Your task to perform on an android device: Open display settings Image 0: 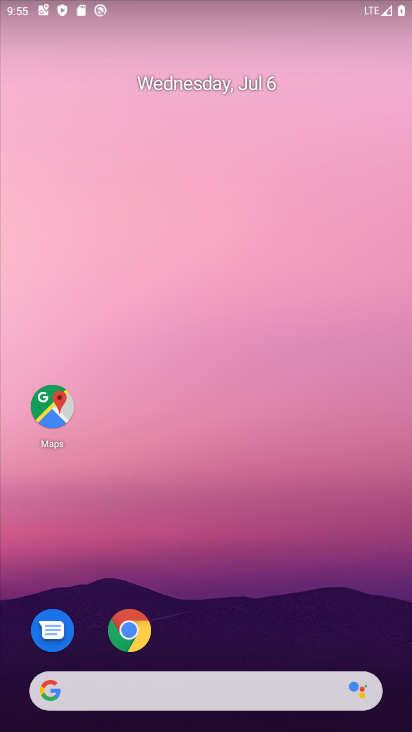
Step 0: drag from (369, 526) to (347, 190)
Your task to perform on an android device: Open display settings Image 1: 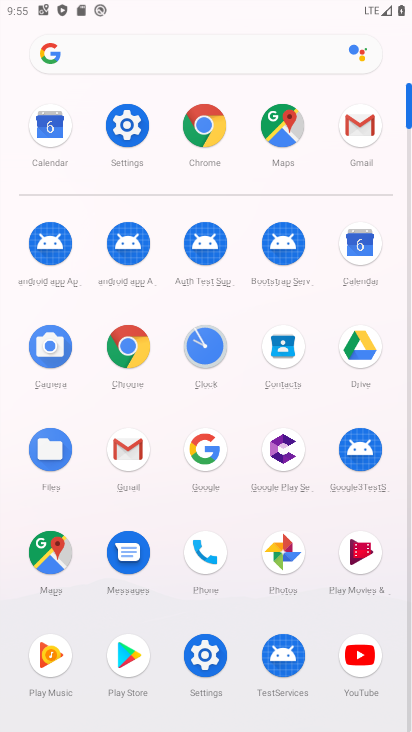
Step 1: click (204, 658)
Your task to perform on an android device: Open display settings Image 2: 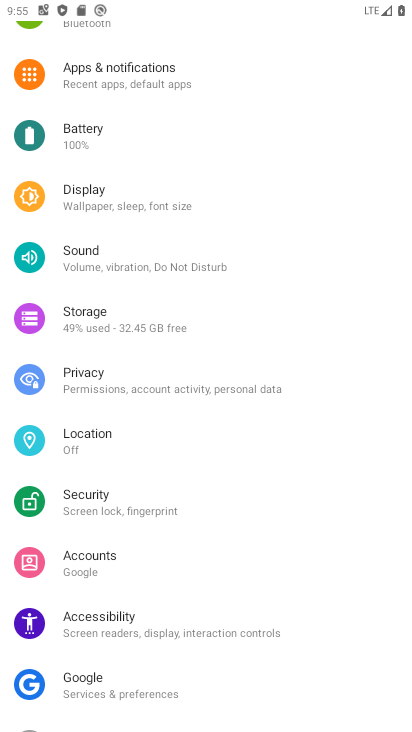
Step 2: click (89, 194)
Your task to perform on an android device: Open display settings Image 3: 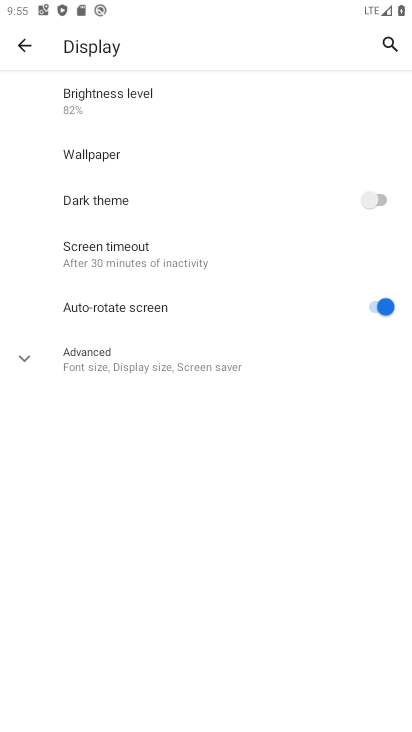
Step 3: click (22, 356)
Your task to perform on an android device: Open display settings Image 4: 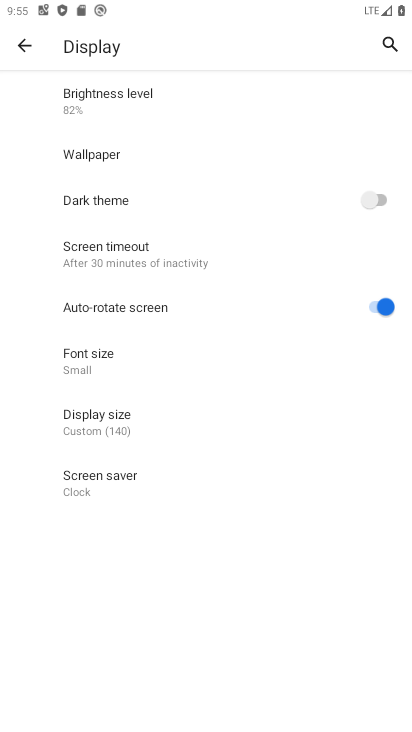
Step 4: task complete